Your task to perform on an android device: What's the weather going to be this weekend? Image 0: 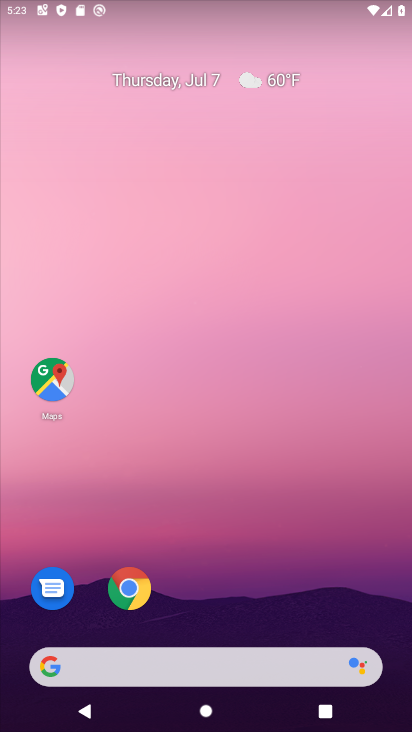
Step 0: click (243, 78)
Your task to perform on an android device: What's the weather going to be this weekend? Image 1: 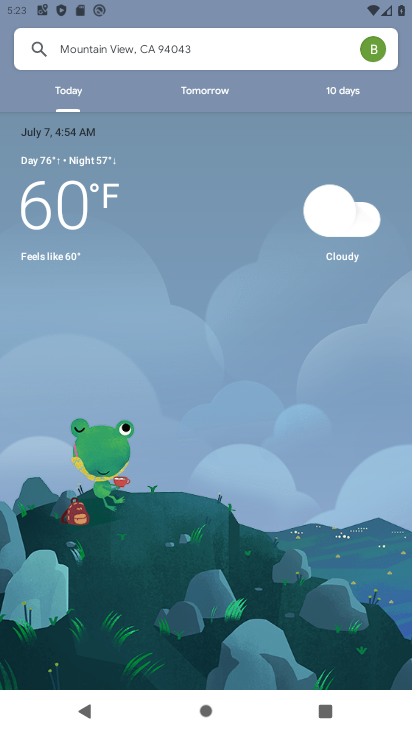
Step 1: click (352, 98)
Your task to perform on an android device: What's the weather going to be this weekend? Image 2: 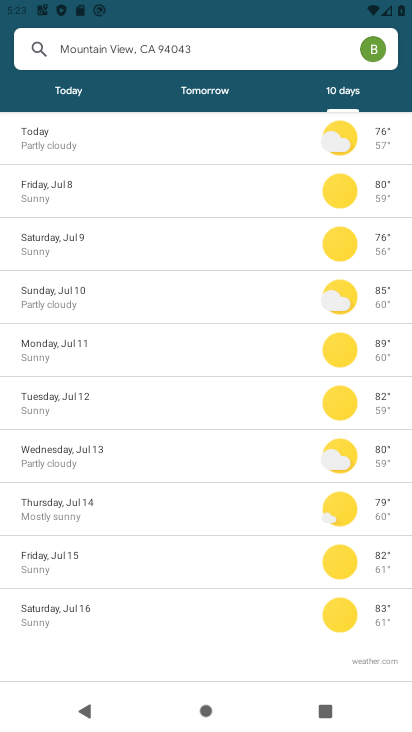
Step 2: task complete